Your task to perform on an android device: turn on priority inbox in the gmail app Image 0: 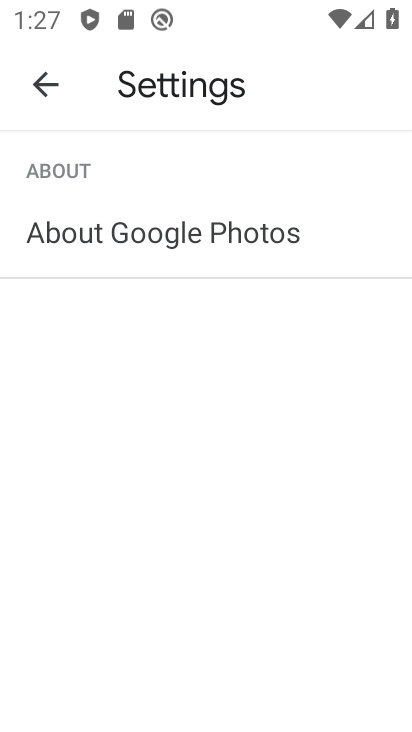
Step 0: press home button
Your task to perform on an android device: turn on priority inbox in the gmail app Image 1: 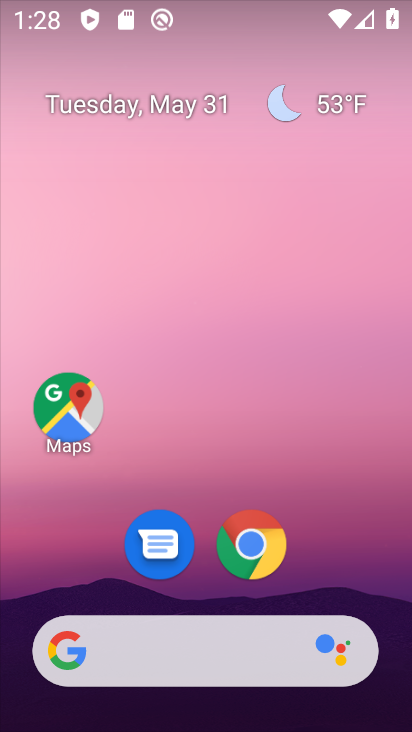
Step 1: drag from (333, 579) to (368, 177)
Your task to perform on an android device: turn on priority inbox in the gmail app Image 2: 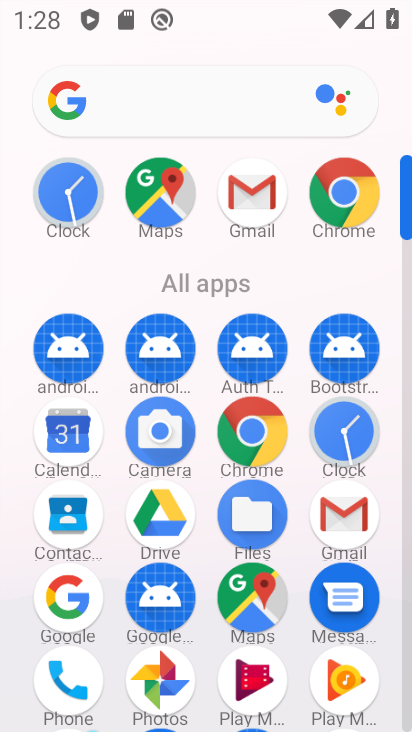
Step 2: click (353, 521)
Your task to perform on an android device: turn on priority inbox in the gmail app Image 3: 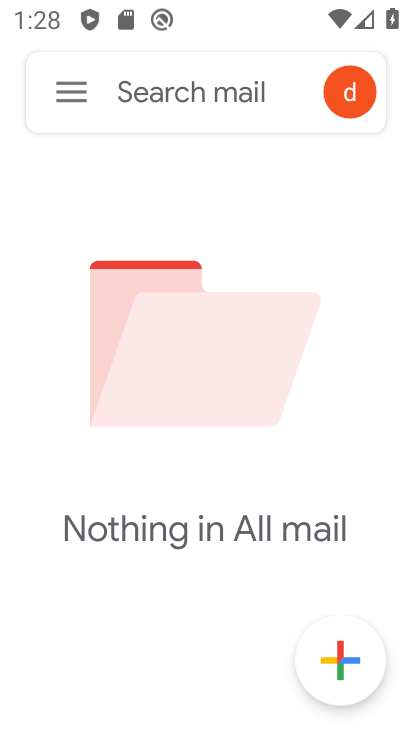
Step 3: click (68, 91)
Your task to perform on an android device: turn on priority inbox in the gmail app Image 4: 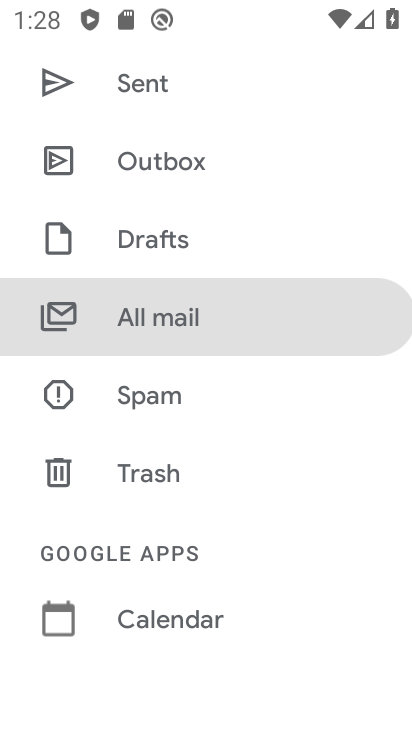
Step 4: drag from (186, 642) to (172, 255)
Your task to perform on an android device: turn on priority inbox in the gmail app Image 5: 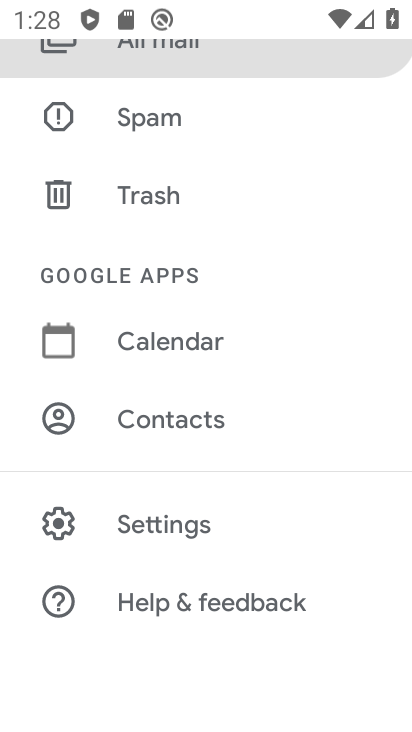
Step 5: click (161, 536)
Your task to perform on an android device: turn on priority inbox in the gmail app Image 6: 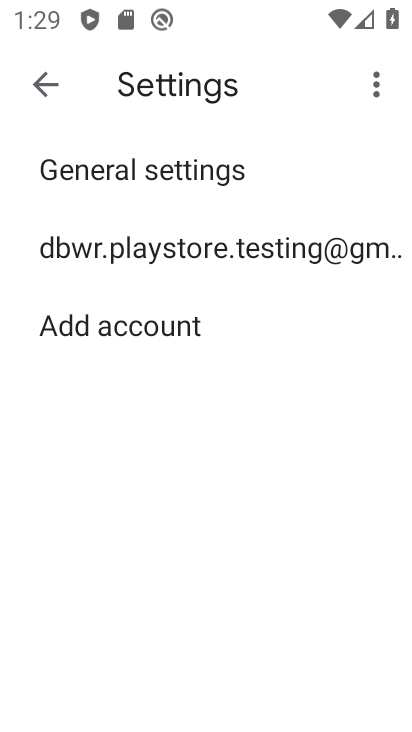
Step 6: click (302, 239)
Your task to perform on an android device: turn on priority inbox in the gmail app Image 7: 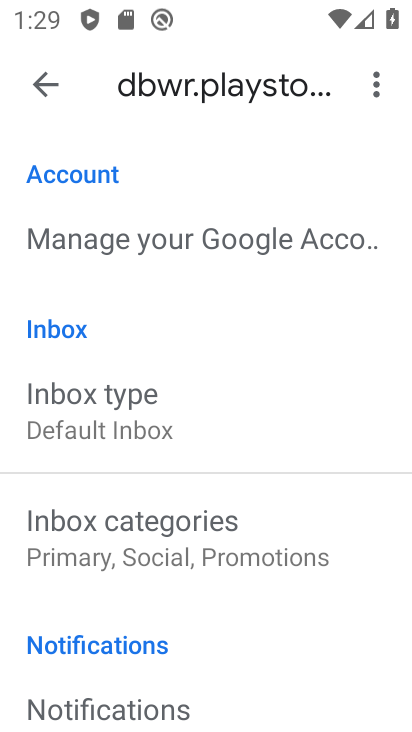
Step 7: click (141, 433)
Your task to perform on an android device: turn on priority inbox in the gmail app Image 8: 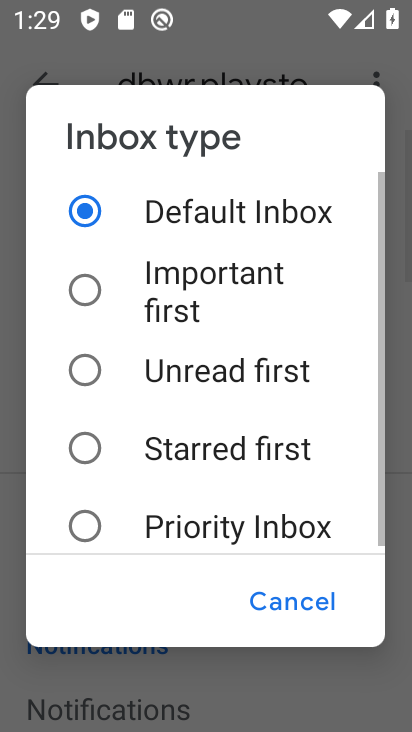
Step 8: click (165, 525)
Your task to perform on an android device: turn on priority inbox in the gmail app Image 9: 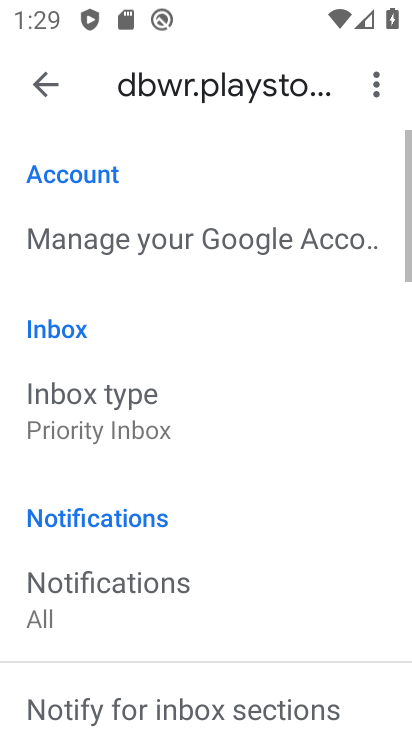
Step 9: task complete